Your task to perform on an android device: Add energizer triple a to the cart on newegg.com Image 0: 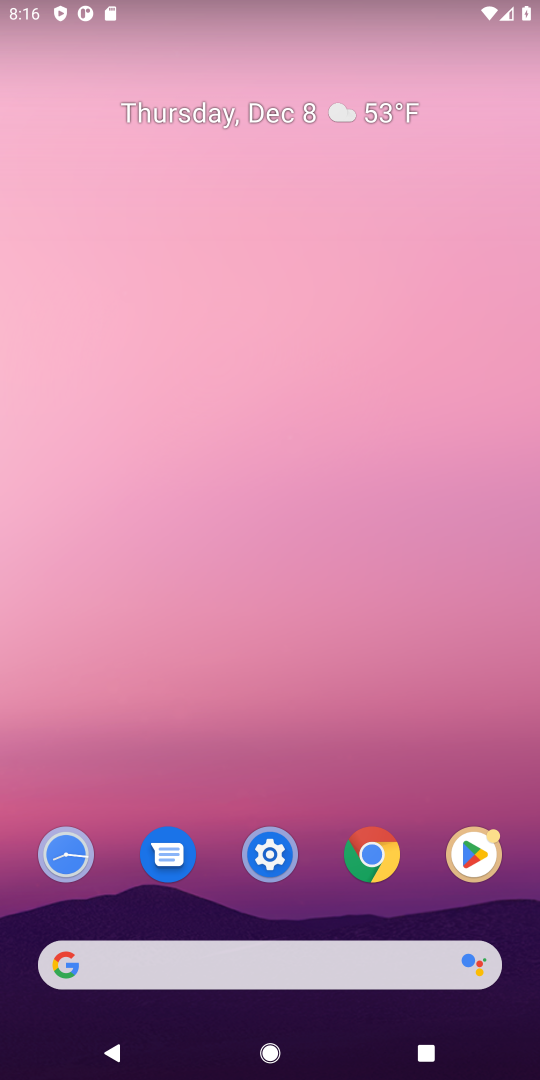
Step 0: press home button
Your task to perform on an android device: Add energizer triple a to the cart on newegg.com Image 1: 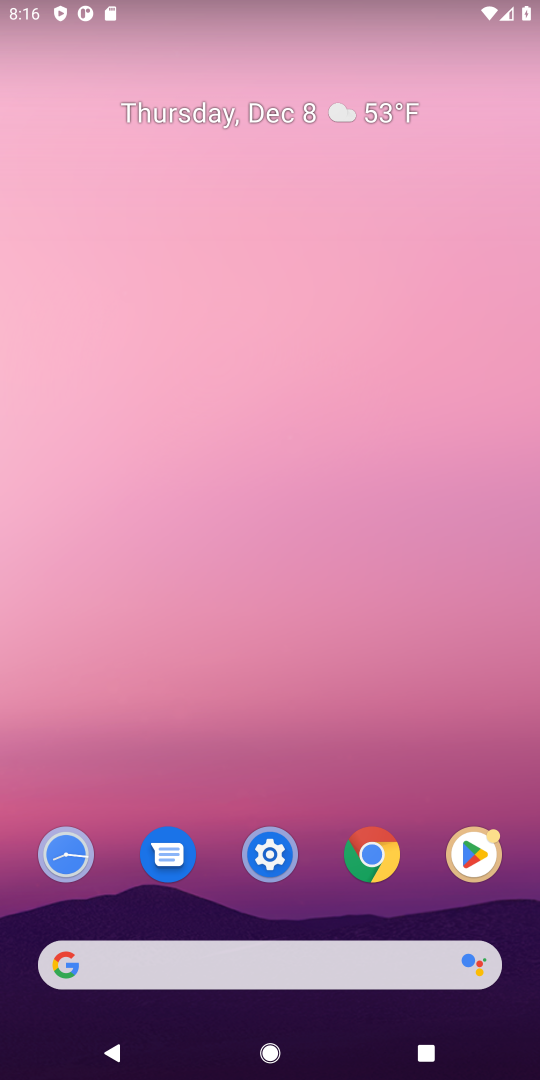
Step 1: click (85, 955)
Your task to perform on an android device: Add energizer triple a to the cart on newegg.com Image 2: 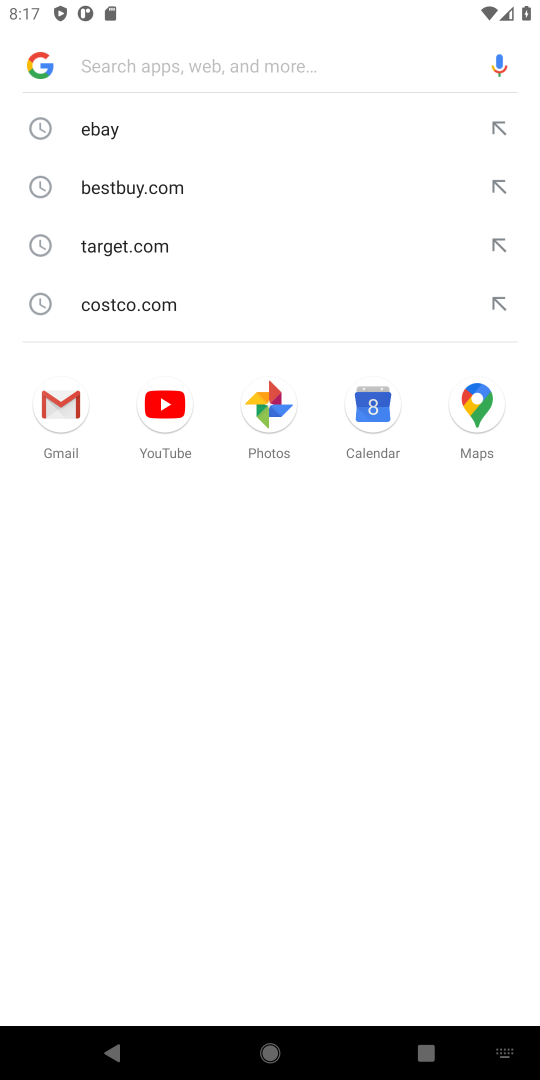
Step 2: press enter
Your task to perform on an android device: Add energizer triple a to the cart on newegg.com Image 3: 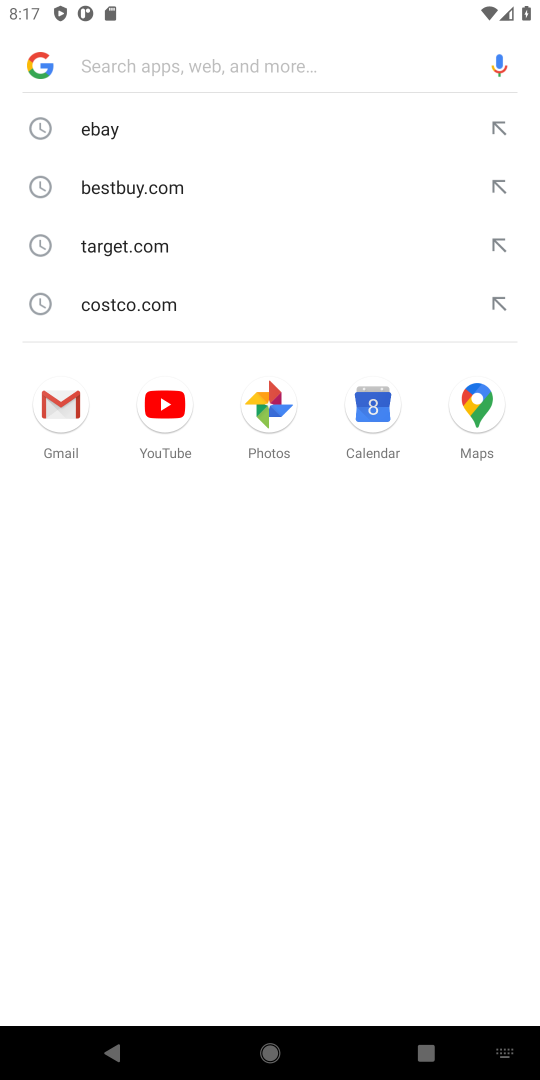
Step 3: type "newegg.com"
Your task to perform on an android device: Add energizer triple a to the cart on newegg.com Image 4: 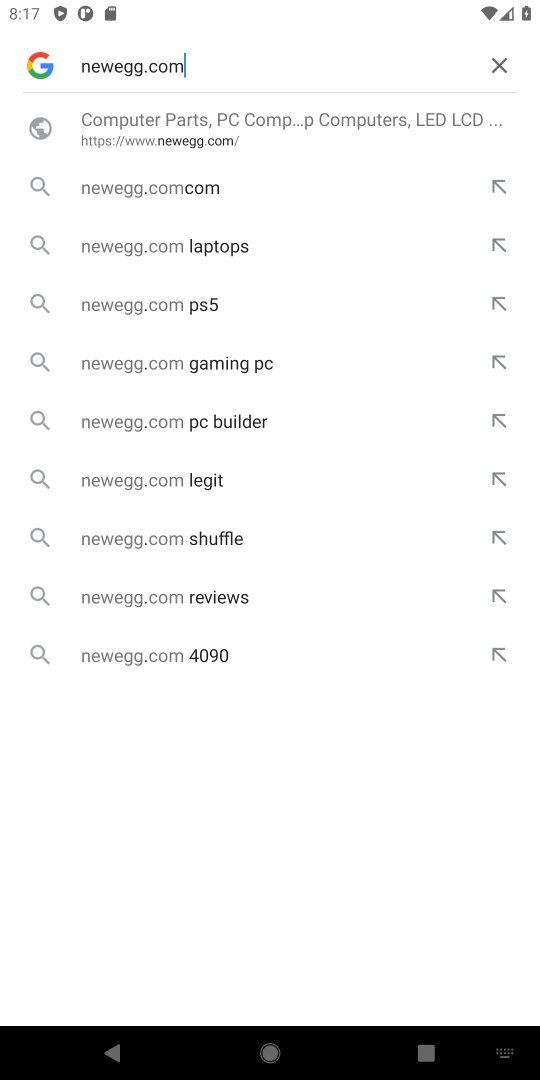
Step 4: press enter
Your task to perform on an android device: Add energizer triple a to the cart on newegg.com Image 5: 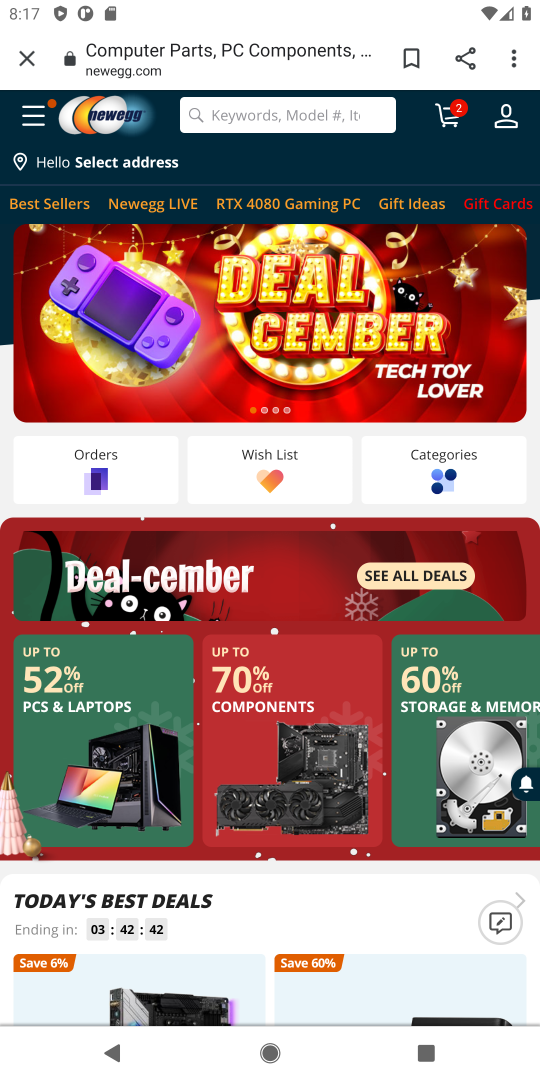
Step 5: click (202, 108)
Your task to perform on an android device: Add energizer triple a to the cart on newegg.com Image 6: 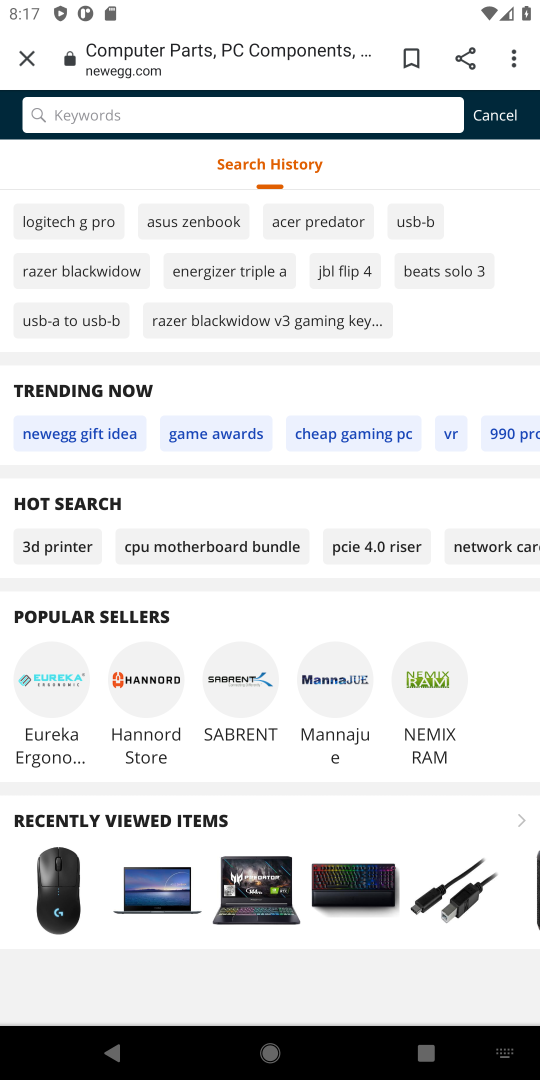
Step 6: type "energizer triple a"
Your task to perform on an android device: Add energizer triple a to the cart on newegg.com Image 7: 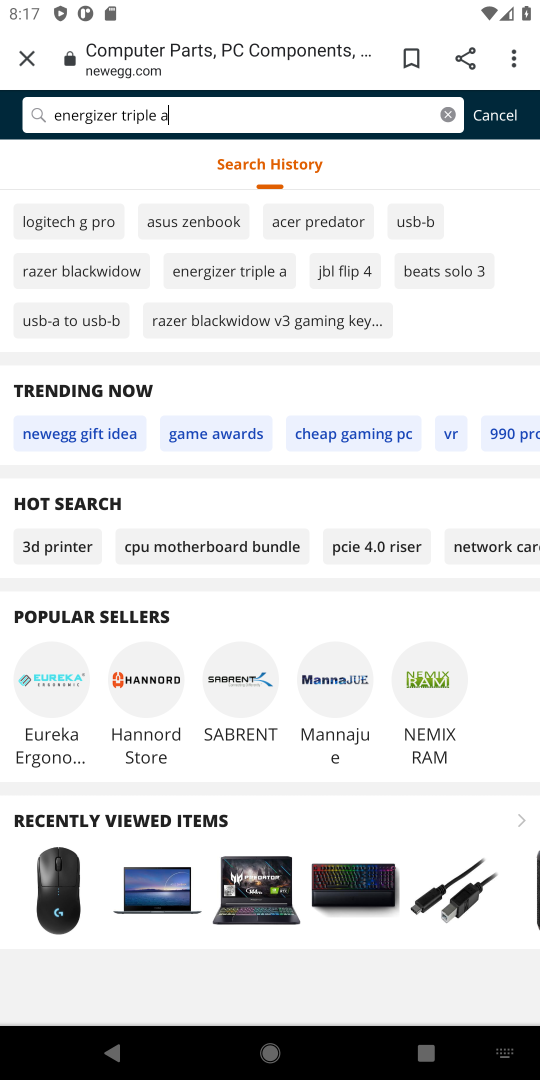
Step 7: press enter
Your task to perform on an android device: Add energizer triple a to the cart on newegg.com Image 8: 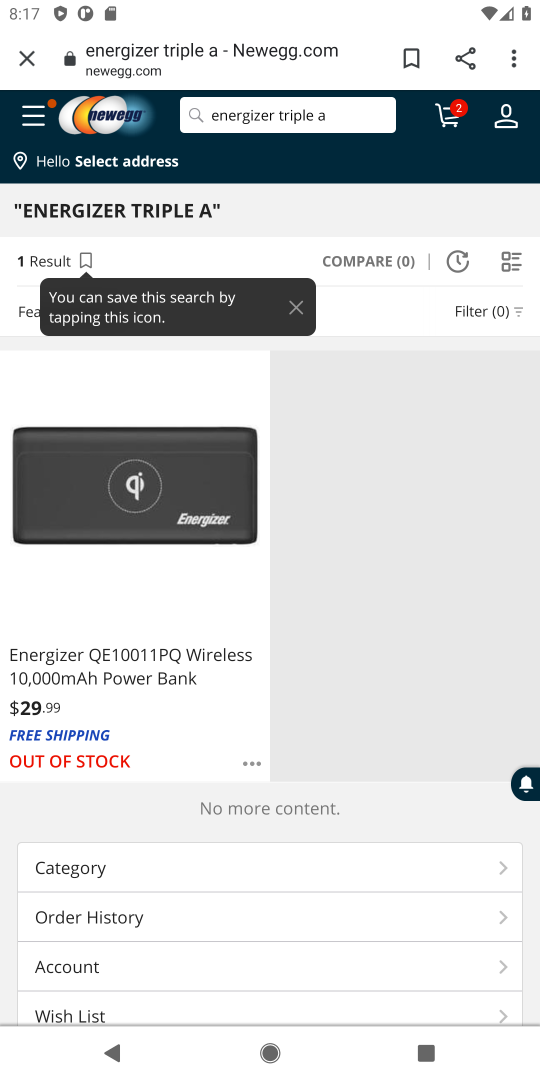
Step 8: task complete